Your task to perform on an android device: open a bookmark in the chrome app Image 0: 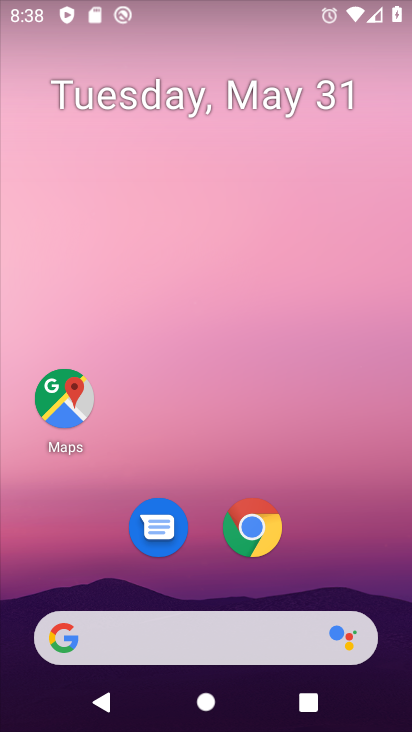
Step 0: click (252, 545)
Your task to perform on an android device: open a bookmark in the chrome app Image 1: 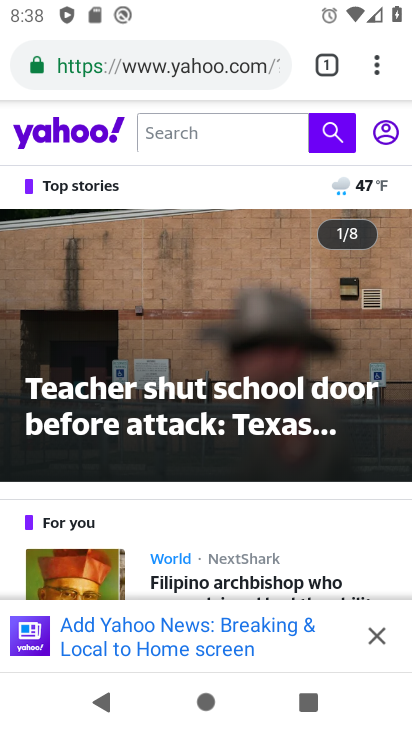
Step 1: click (372, 73)
Your task to perform on an android device: open a bookmark in the chrome app Image 2: 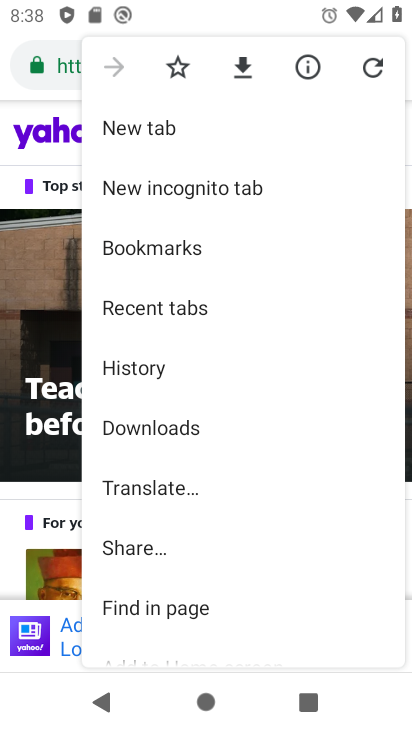
Step 2: click (186, 253)
Your task to perform on an android device: open a bookmark in the chrome app Image 3: 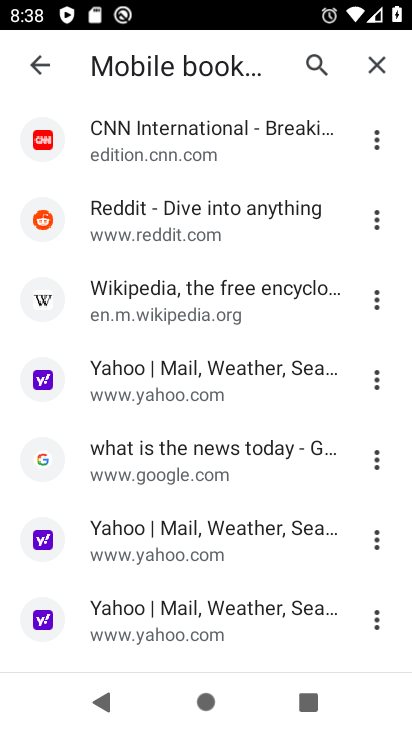
Step 3: click (179, 232)
Your task to perform on an android device: open a bookmark in the chrome app Image 4: 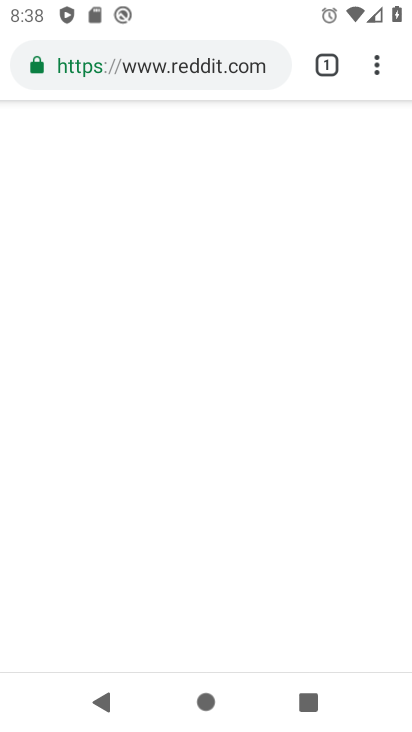
Step 4: task complete